Your task to perform on an android device: Add dell alienware to the cart on target Image 0: 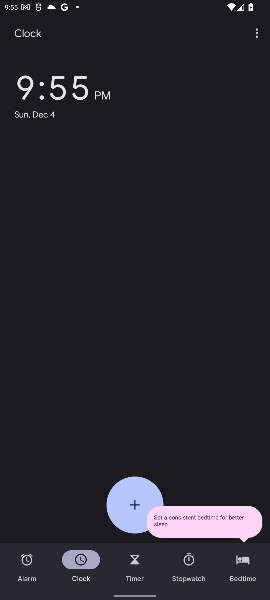
Step 0: press home button
Your task to perform on an android device: Add dell alienware to the cart on target Image 1: 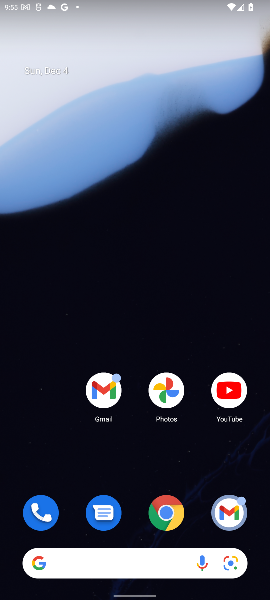
Step 1: click (172, 506)
Your task to perform on an android device: Add dell alienware to the cart on target Image 2: 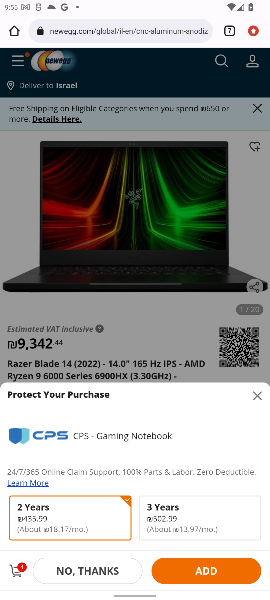
Step 2: click (230, 28)
Your task to perform on an android device: Add dell alienware to the cart on target Image 3: 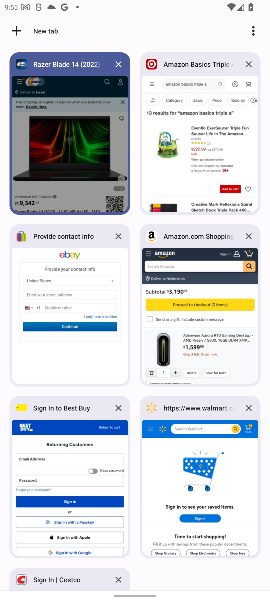
Step 3: click (182, 91)
Your task to perform on an android device: Add dell alienware to the cart on target Image 4: 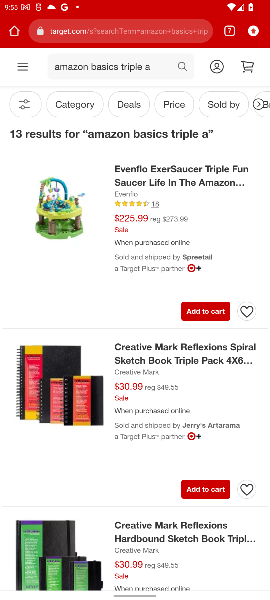
Step 4: click (150, 65)
Your task to perform on an android device: Add dell alienware to the cart on target Image 5: 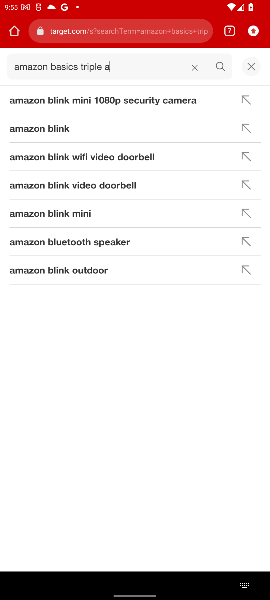
Step 5: click (192, 66)
Your task to perform on an android device: Add dell alienware to the cart on target Image 6: 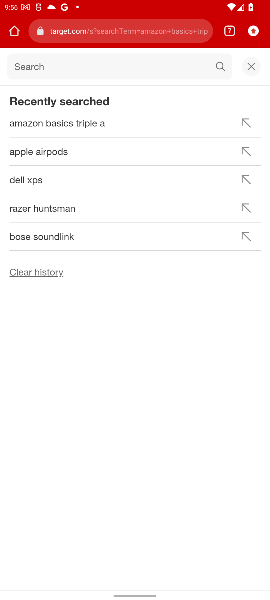
Step 6: click (75, 65)
Your task to perform on an android device: Add dell alienware to the cart on target Image 7: 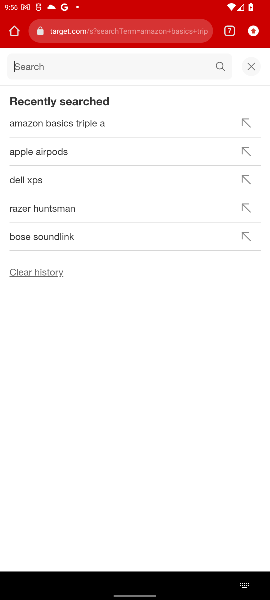
Step 7: type "dell alienware"
Your task to perform on an android device: Add dell alienware to the cart on target Image 8: 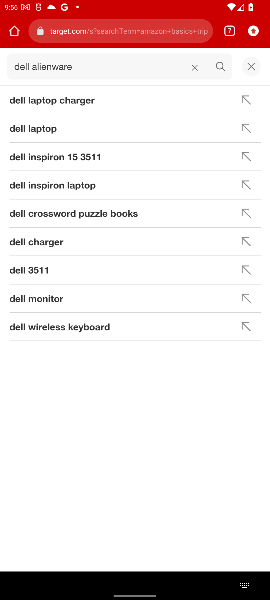
Step 8: click (222, 69)
Your task to perform on an android device: Add dell alienware to the cart on target Image 9: 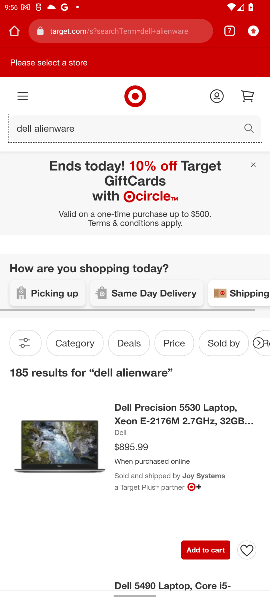
Step 9: task complete